Your task to perform on an android device: What is the news today? Image 0: 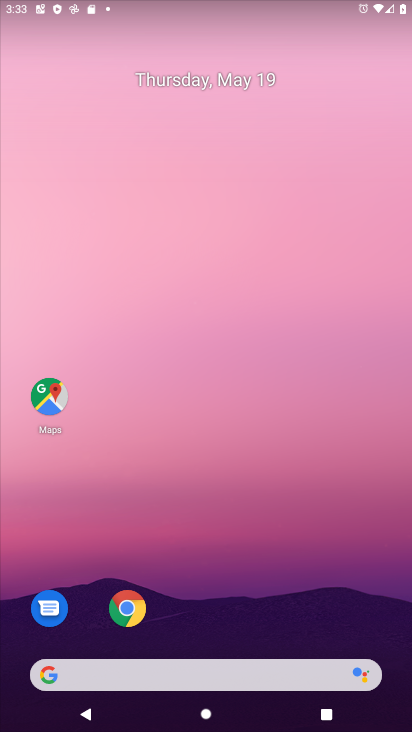
Step 0: click (261, 675)
Your task to perform on an android device: What is the news today? Image 1: 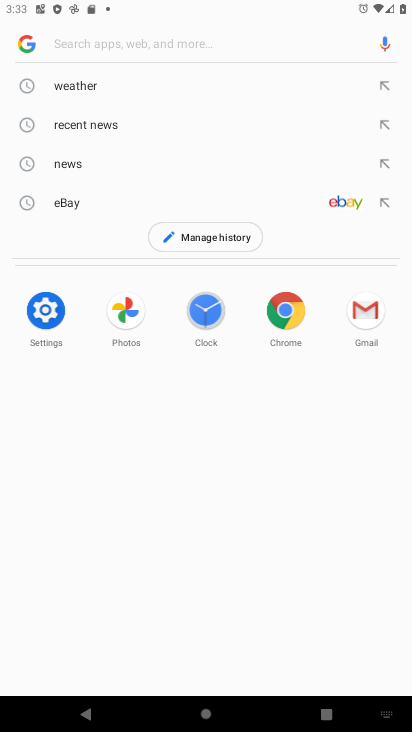
Step 1: click (152, 164)
Your task to perform on an android device: What is the news today? Image 2: 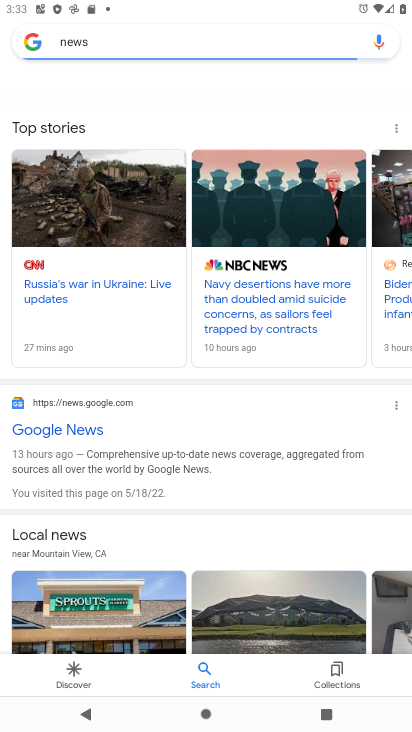
Step 2: task complete